Your task to perform on an android device: turn off location Image 0: 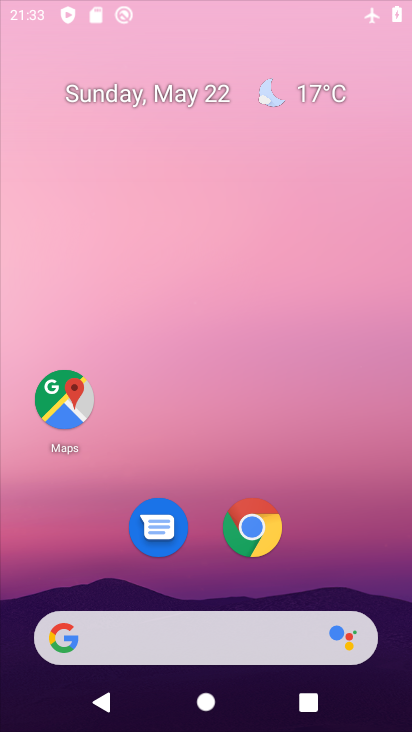
Step 0: click (226, 57)
Your task to perform on an android device: turn off location Image 1: 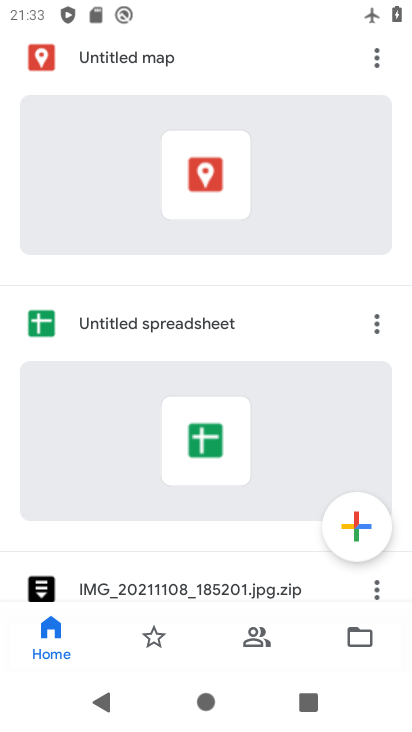
Step 1: press home button
Your task to perform on an android device: turn off location Image 2: 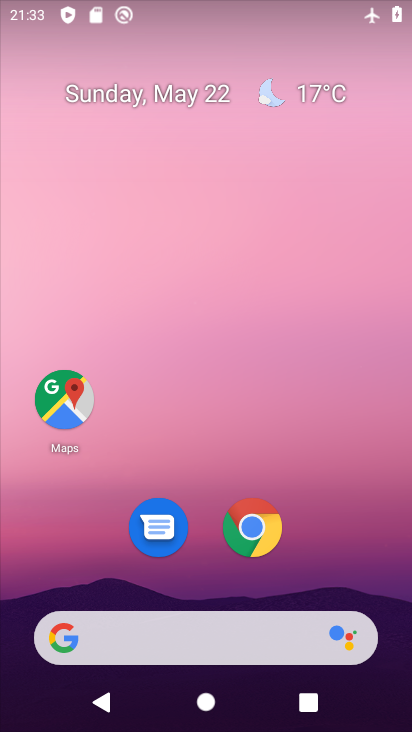
Step 2: drag from (232, 442) to (248, 0)
Your task to perform on an android device: turn off location Image 3: 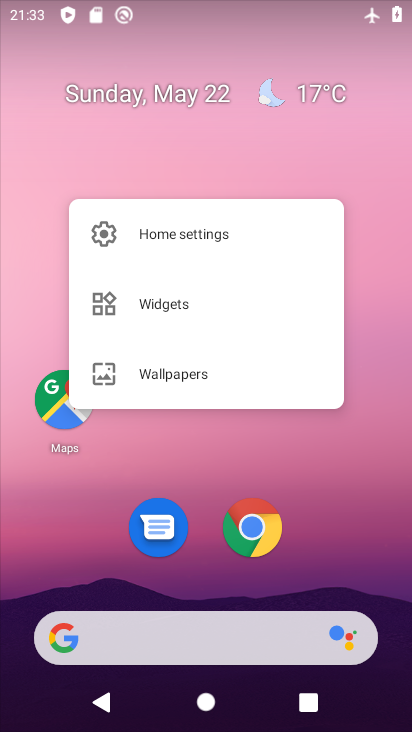
Step 3: click (208, 451)
Your task to perform on an android device: turn off location Image 4: 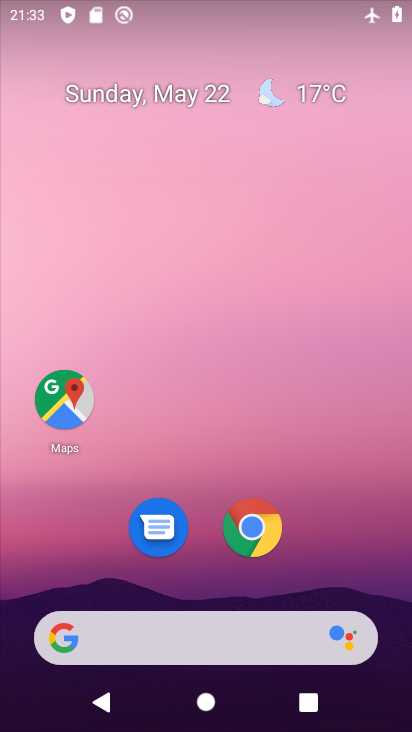
Step 4: drag from (196, 481) to (209, 68)
Your task to perform on an android device: turn off location Image 5: 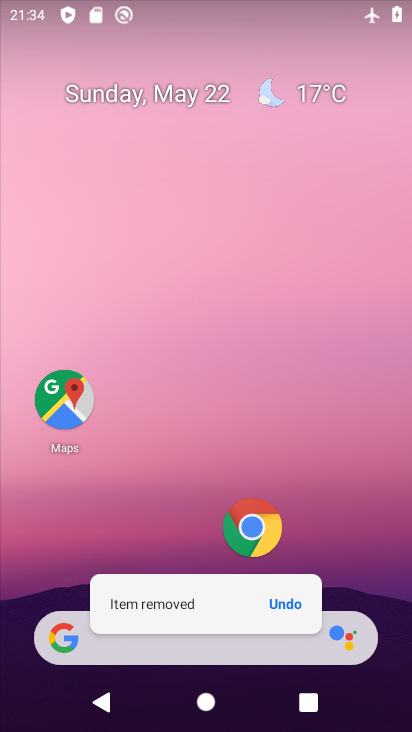
Step 5: click (349, 477)
Your task to perform on an android device: turn off location Image 6: 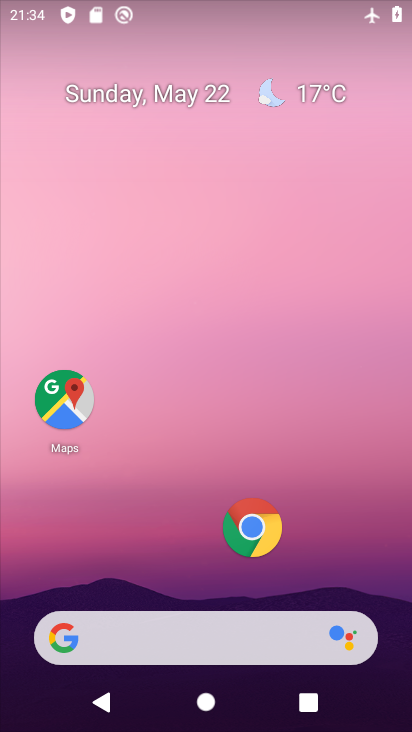
Step 6: drag from (140, 498) to (128, 84)
Your task to perform on an android device: turn off location Image 7: 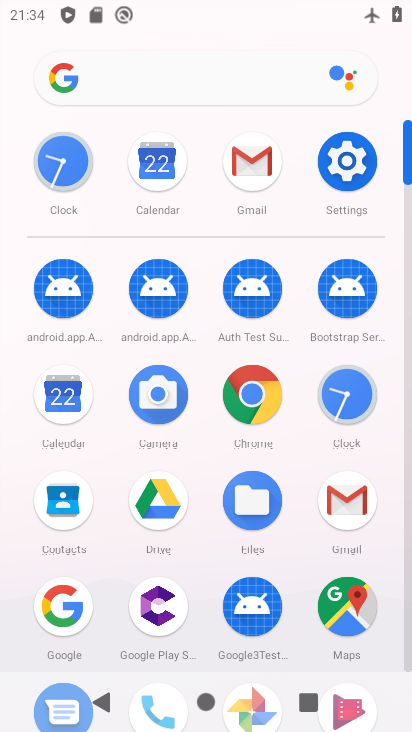
Step 7: click (354, 159)
Your task to perform on an android device: turn off location Image 8: 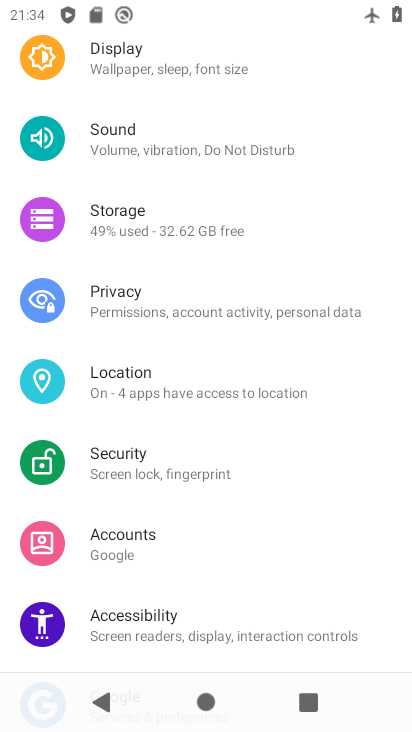
Step 8: click (132, 369)
Your task to perform on an android device: turn off location Image 9: 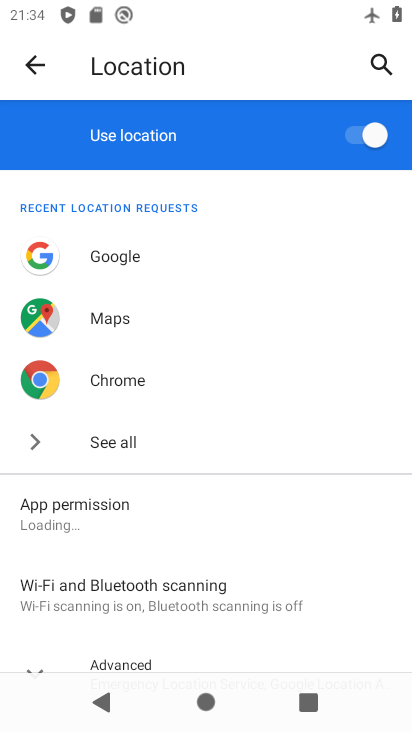
Step 9: click (372, 135)
Your task to perform on an android device: turn off location Image 10: 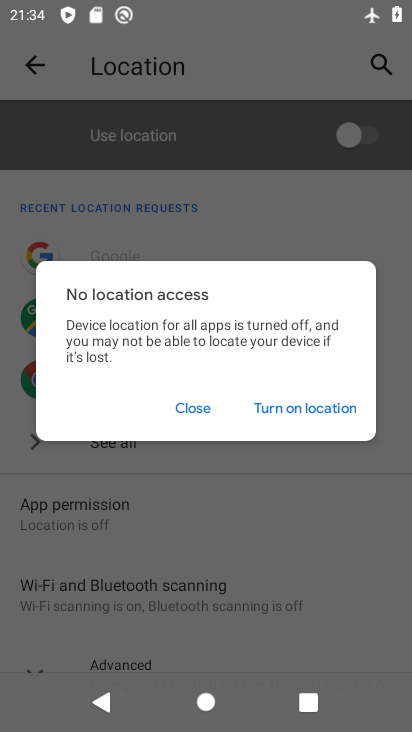
Step 10: click (184, 411)
Your task to perform on an android device: turn off location Image 11: 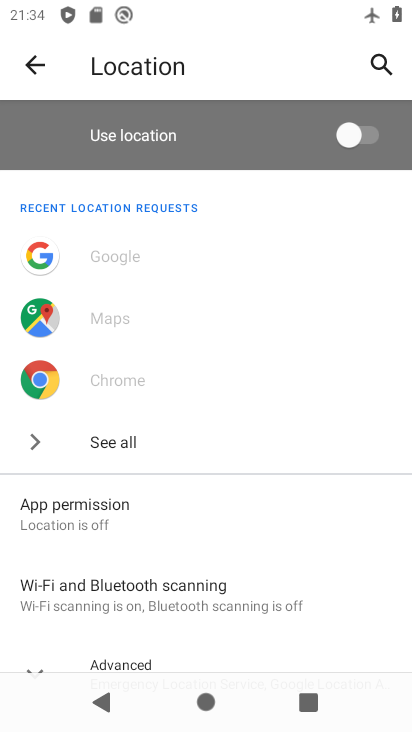
Step 11: task complete